Your task to perform on an android device: turn notification dots off Image 0: 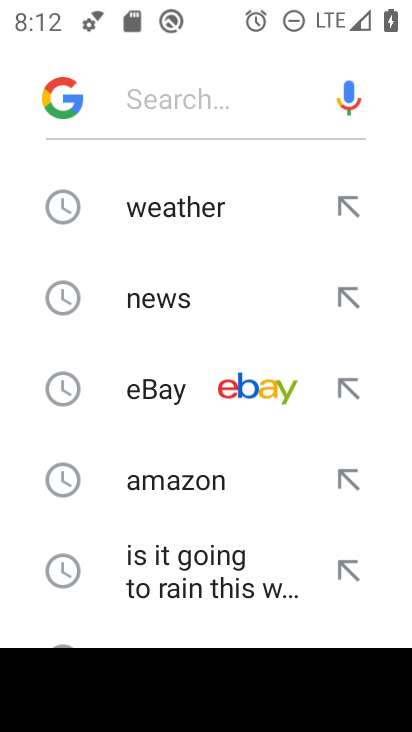
Step 0: press home button
Your task to perform on an android device: turn notification dots off Image 1: 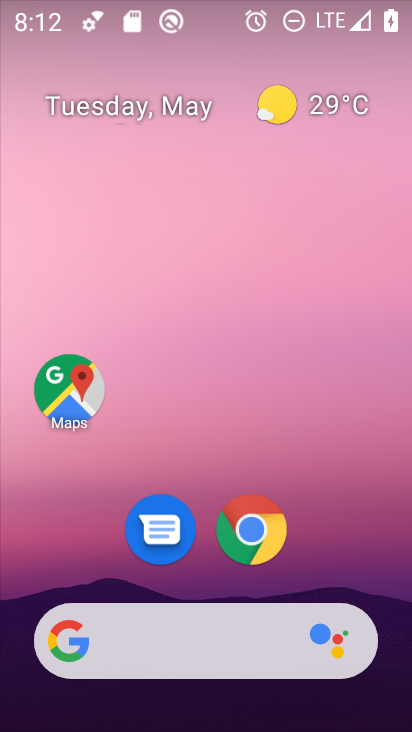
Step 1: drag from (394, 629) to (258, 93)
Your task to perform on an android device: turn notification dots off Image 2: 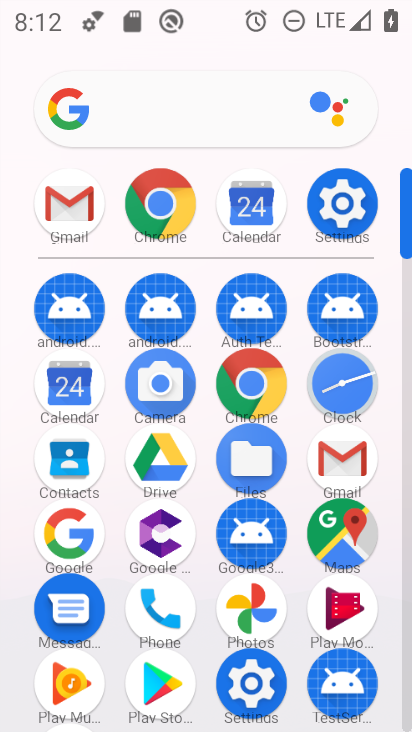
Step 2: click (256, 689)
Your task to perform on an android device: turn notification dots off Image 3: 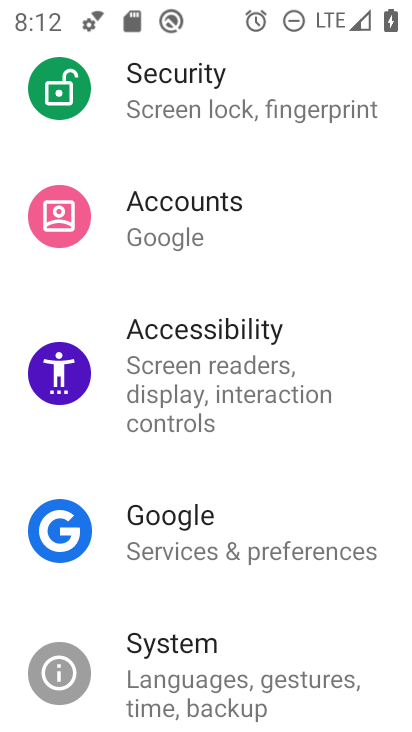
Step 3: drag from (205, 167) to (232, 643)
Your task to perform on an android device: turn notification dots off Image 4: 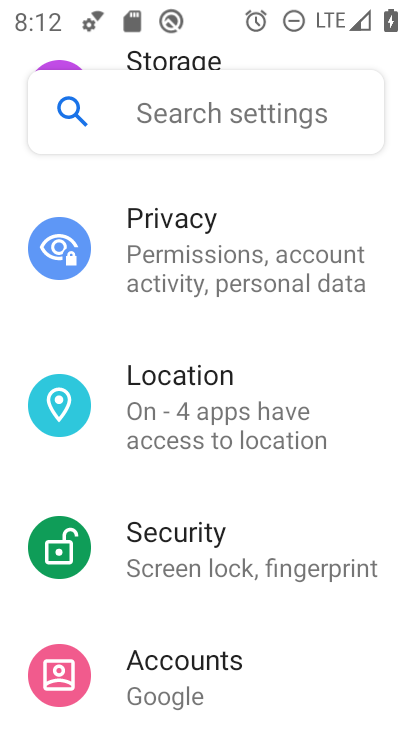
Step 4: drag from (186, 219) to (237, 604)
Your task to perform on an android device: turn notification dots off Image 5: 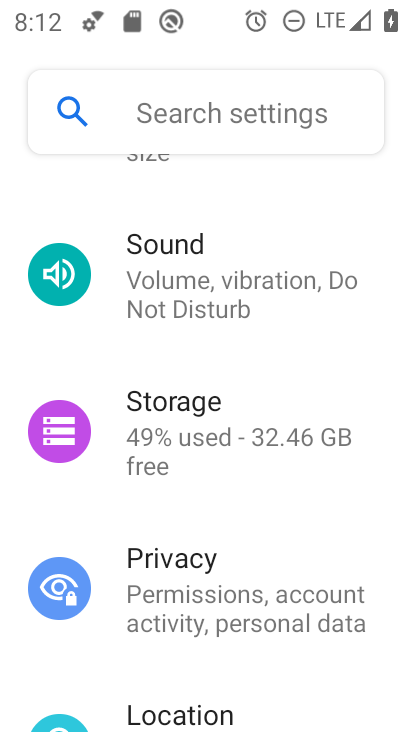
Step 5: drag from (185, 241) to (195, 712)
Your task to perform on an android device: turn notification dots off Image 6: 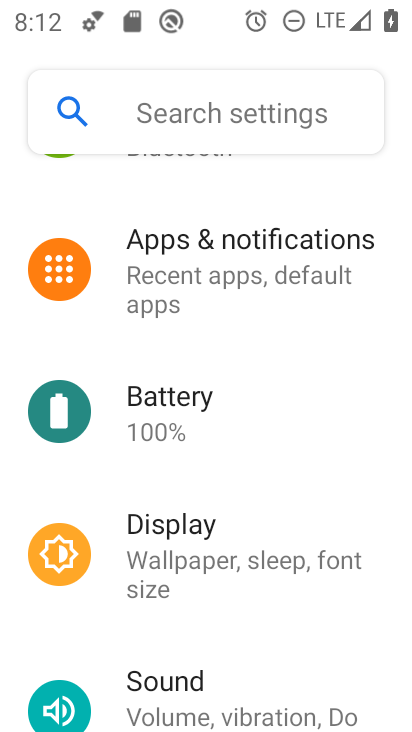
Step 6: click (226, 274)
Your task to perform on an android device: turn notification dots off Image 7: 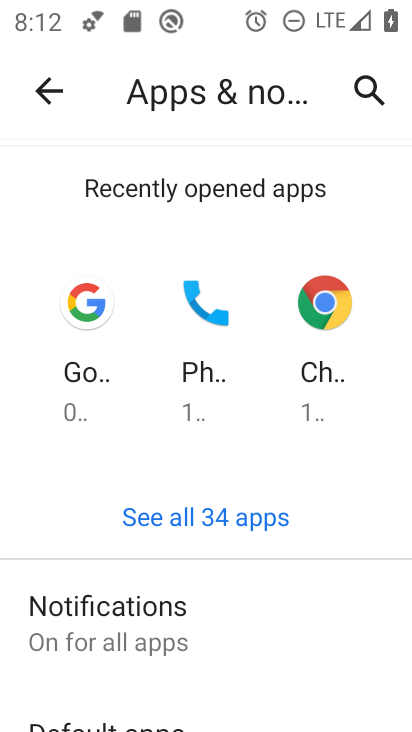
Step 7: click (272, 627)
Your task to perform on an android device: turn notification dots off Image 8: 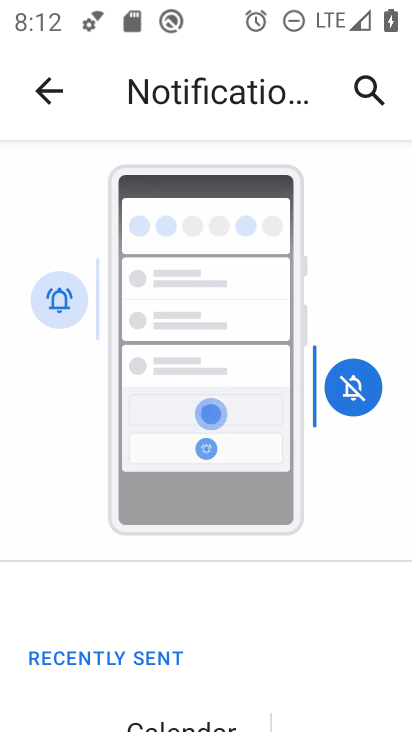
Step 8: drag from (234, 648) to (205, 77)
Your task to perform on an android device: turn notification dots off Image 9: 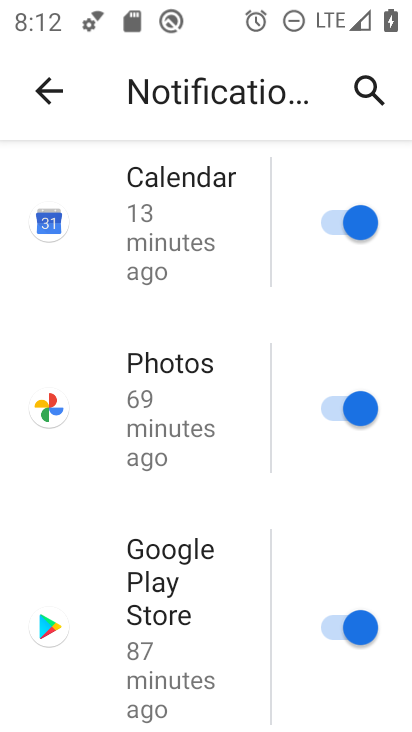
Step 9: drag from (205, 648) to (217, 69)
Your task to perform on an android device: turn notification dots off Image 10: 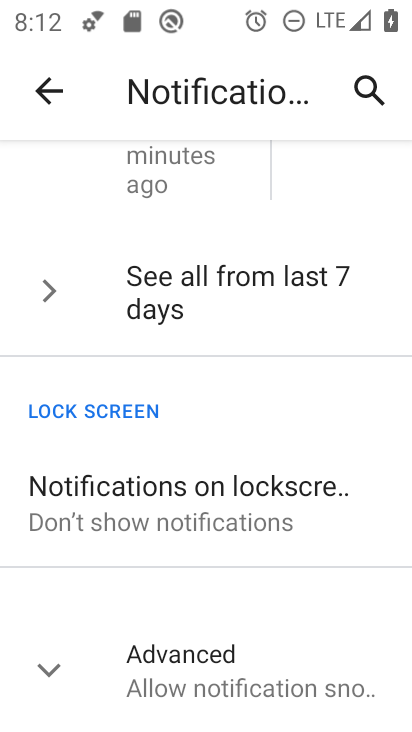
Step 10: click (202, 647)
Your task to perform on an android device: turn notification dots off Image 11: 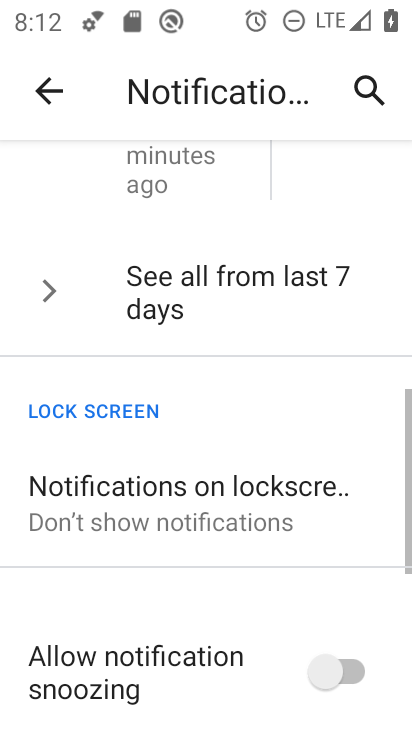
Step 11: task complete